Your task to perform on an android device: move an email to a new category in the gmail app Image 0: 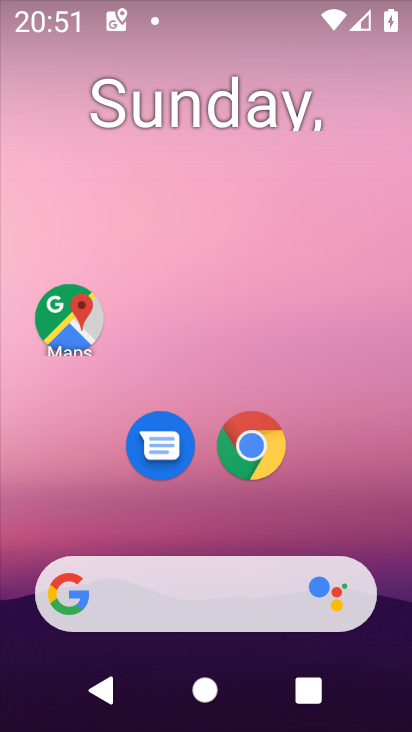
Step 0: drag from (33, 343) to (372, 106)
Your task to perform on an android device: move an email to a new category in the gmail app Image 1: 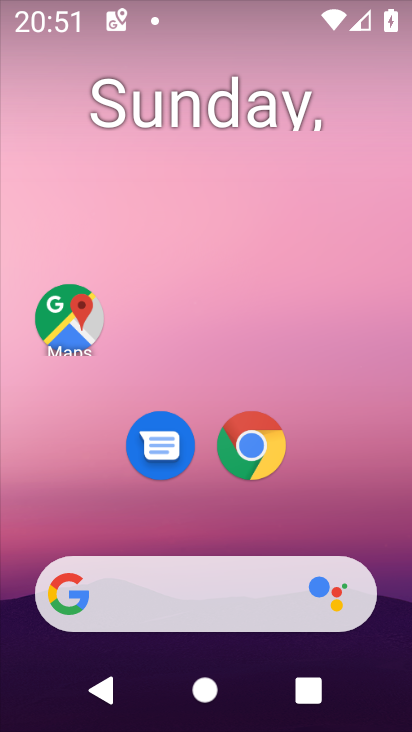
Step 1: drag from (31, 611) to (212, 208)
Your task to perform on an android device: move an email to a new category in the gmail app Image 2: 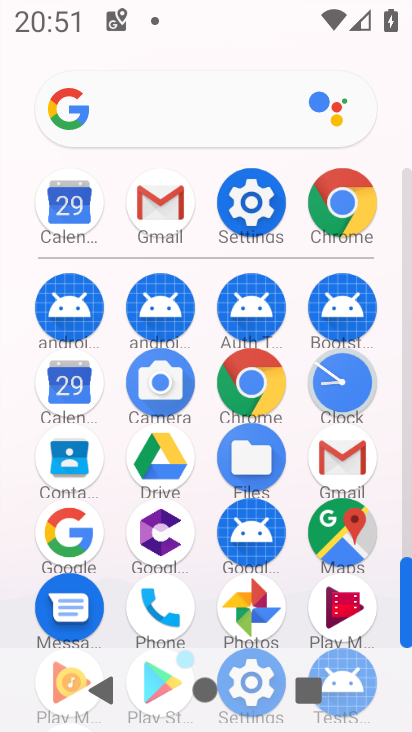
Step 2: click (342, 460)
Your task to perform on an android device: move an email to a new category in the gmail app Image 3: 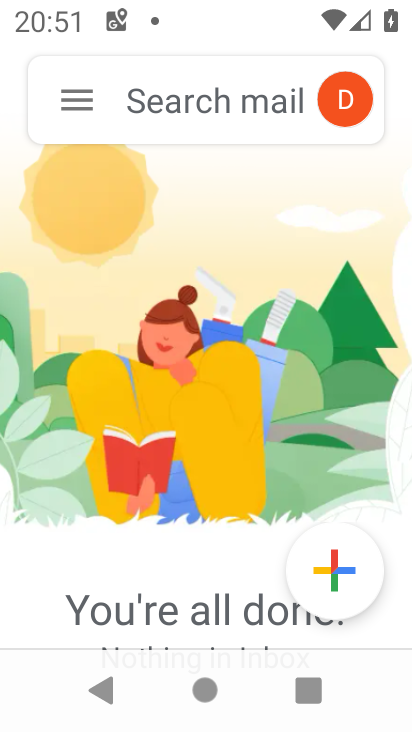
Step 3: click (70, 97)
Your task to perform on an android device: move an email to a new category in the gmail app Image 4: 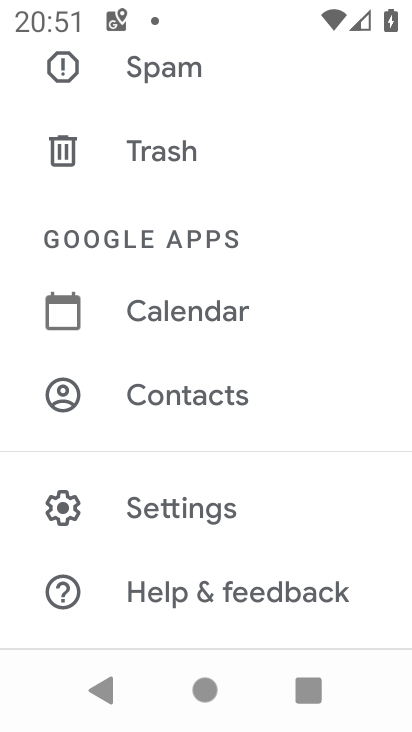
Step 4: click (113, 664)
Your task to perform on an android device: move an email to a new category in the gmail app Image 5: 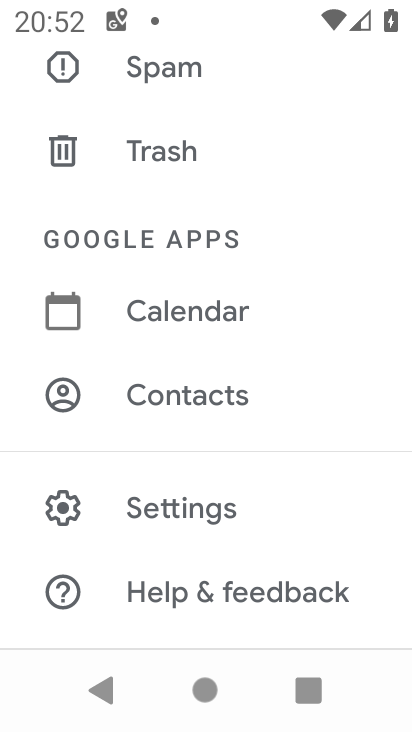
Step 5: task complete